Your task to perform on an android device: uninstall "Flipkart Online Shopping App" Image 0: 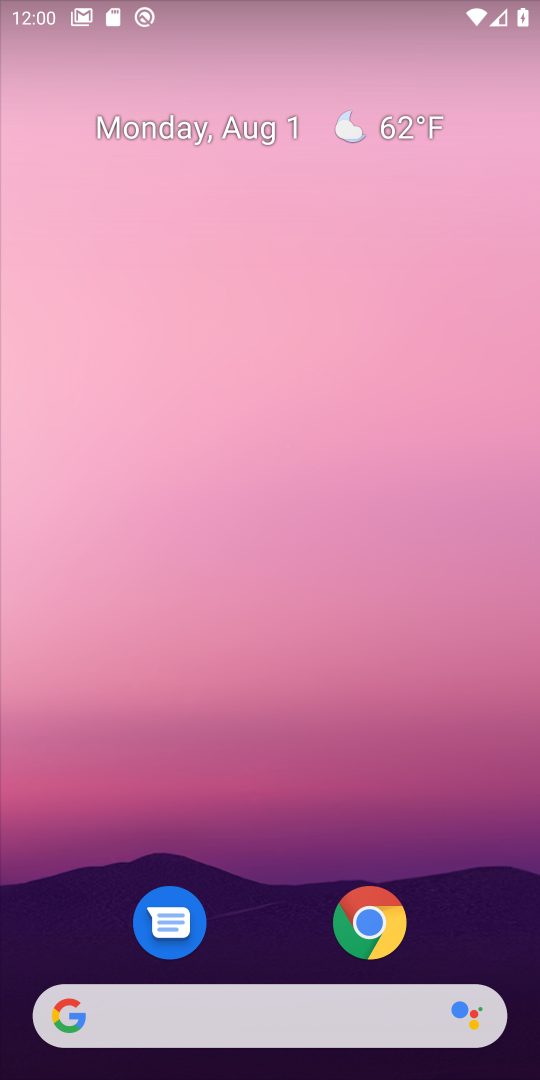
Step 0: drag from (254, 646) to (181, 128)
Your task to perform on an android device: uninstall "Flipkart Online Shopping App" Image 1: 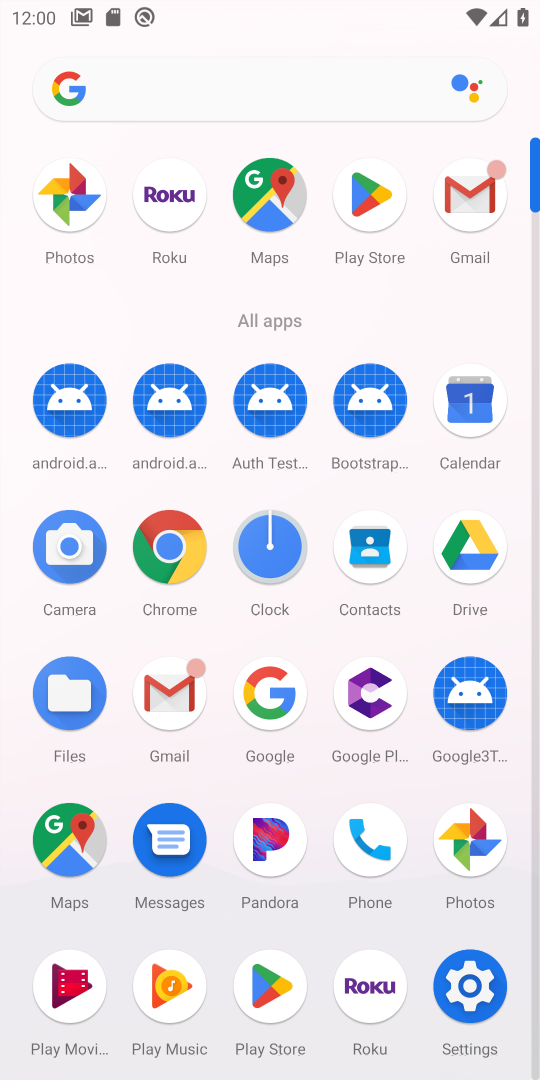
Step 1: click (249, 1005)
Your task to perform on an android device: uninstall "Flipkart Online Shopping App" Image 2: 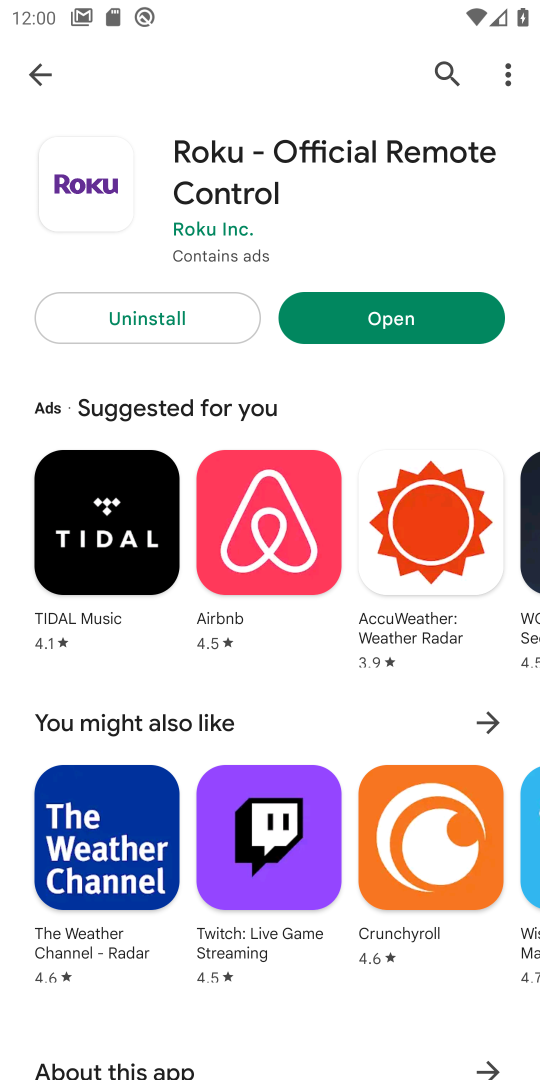
Step 2: click (437, 52)
Your task to perform on an android device: uninstall "Flipkart Online Shopping App" Image 3: 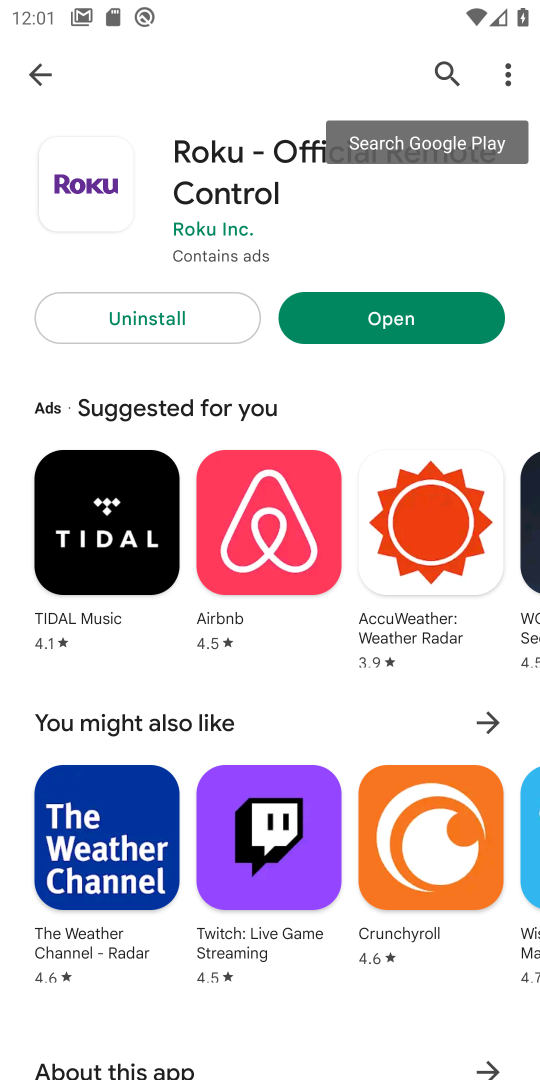
Step 3: click (449, 69)
Your task to perform on an android device: uninstall "Flipkart Online Shopping App" Image 4: 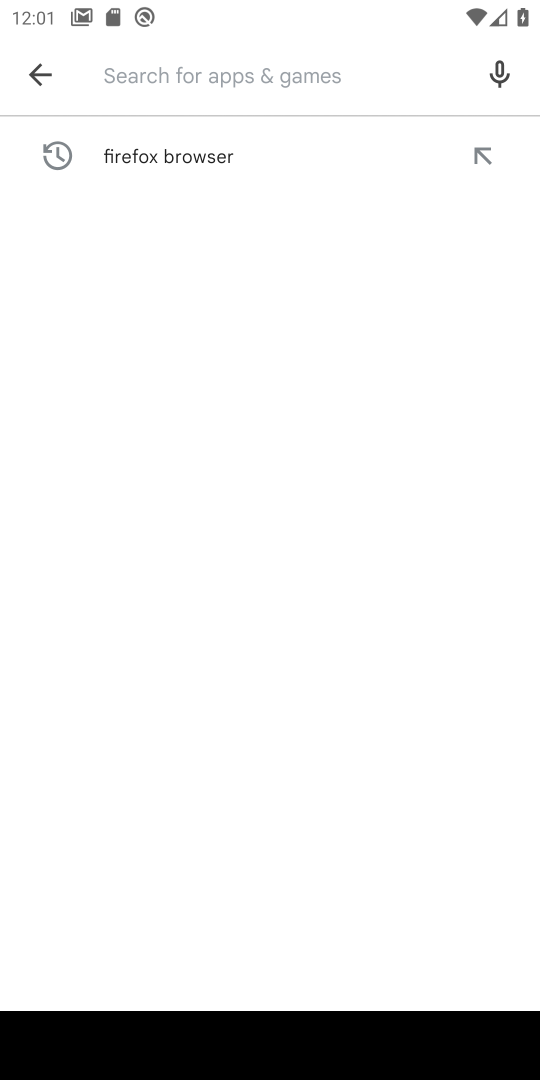
Step 4: type "Flipkart Online Shopping App"
Your task to perform on an android device: uninstall "Flipkart Online Shopping App" Image 5: 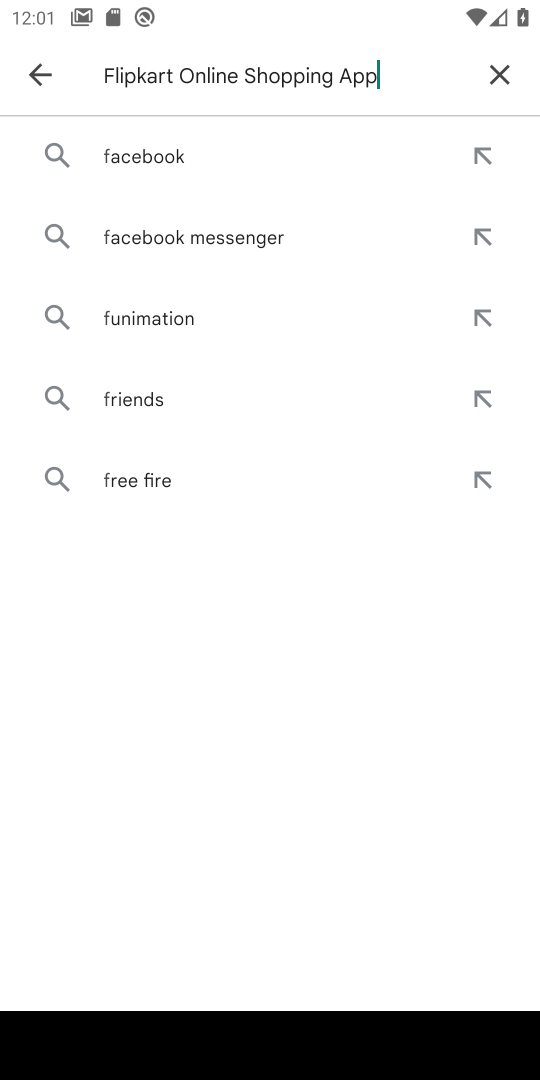
Step 5: type ""
Your task to perform on an android device: uninstall "Flipkart Online Shopping App" Image 6: 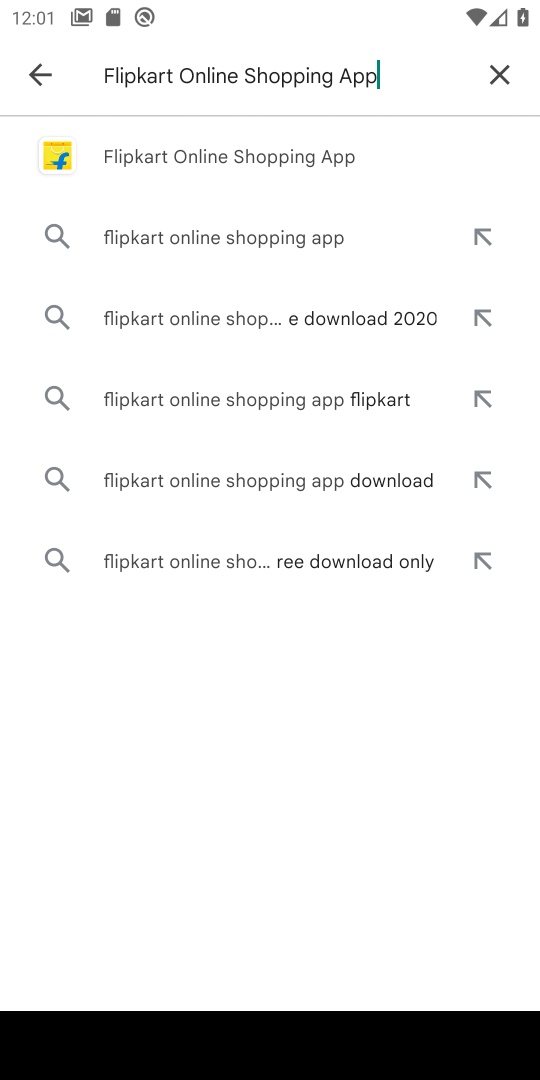
Step 6: click (301, 148)
Your task to perform on an android device: uninstall "Flipkart Online Shopping App" Image 7: 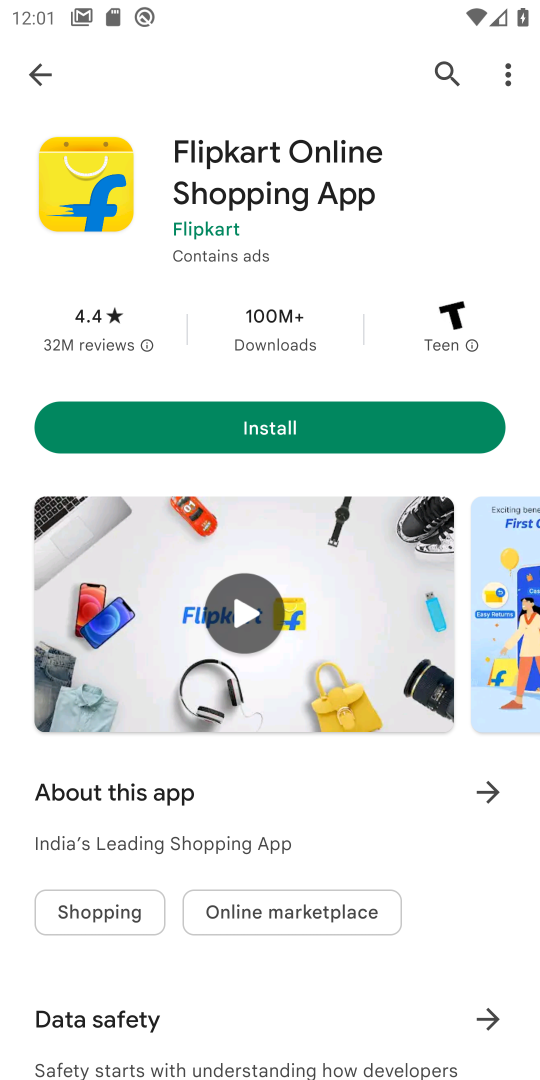
Step 7: task complete